Your task to perform on an android device: change the clock display to analog Image 0: 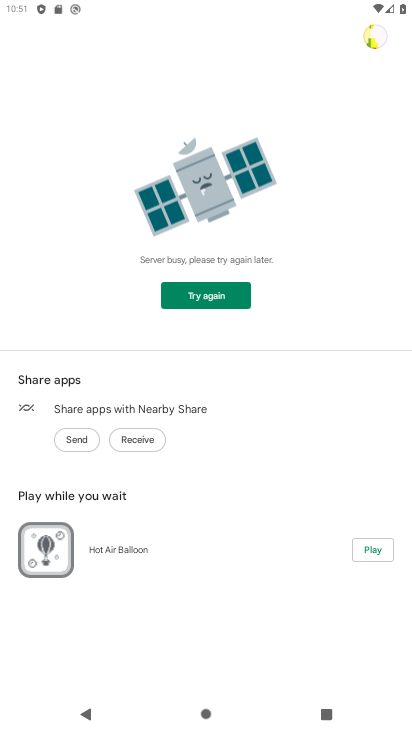
Step 0: press home button
Your task to perform on an android device: change the clock display to analog Image 1: 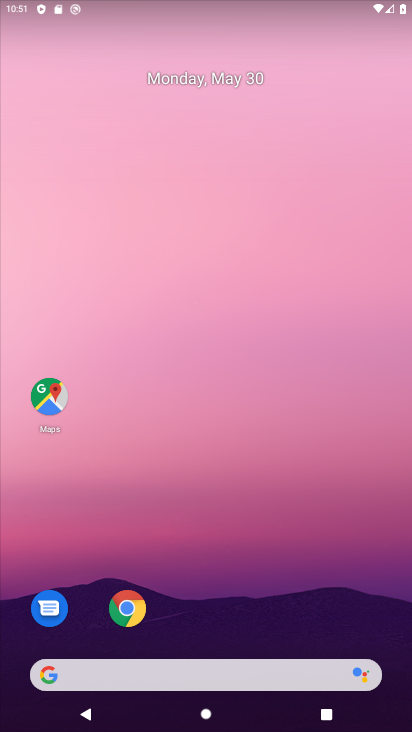
Step 1: drag from (296, 622) to (316, 13)
Your task to perform on an android device: change the clock display to analog Image 2: 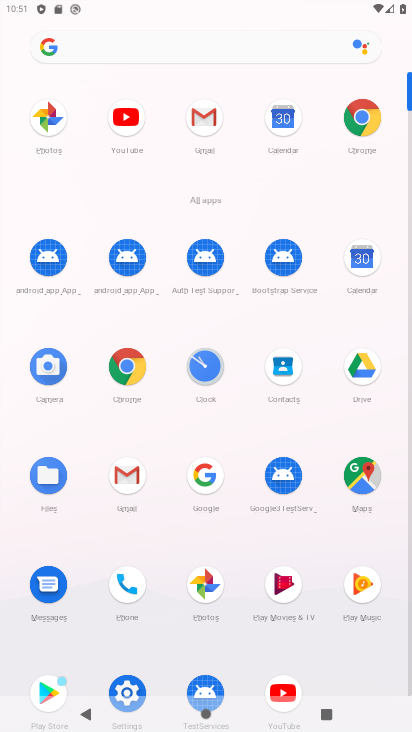
Step 2: click (201, 371)
Your task to perform on an android device: change the clock display to analog Image 3: 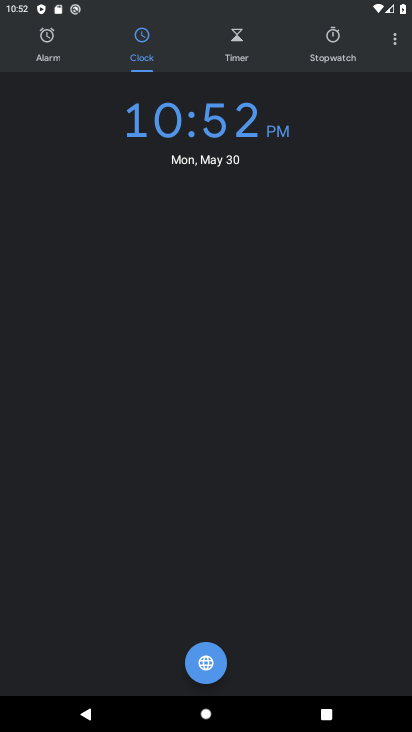
Step 3: click (394, 38)
Your task to perform on an android device: change the clock display to analog Image 4: 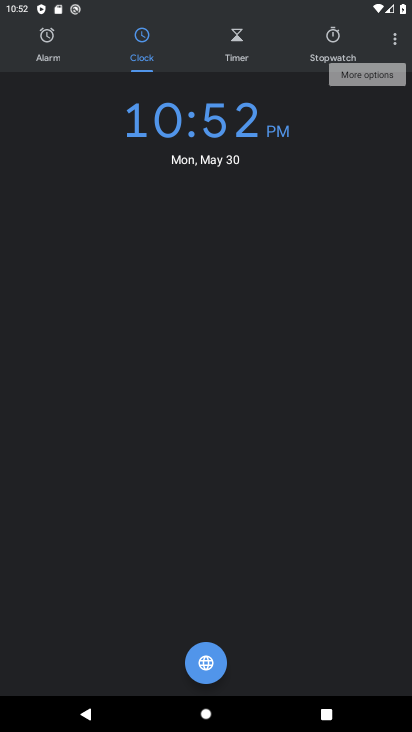
Step 4: click (397, 43)
Your task to perform on an android device: change the clock display to analog Image 5: 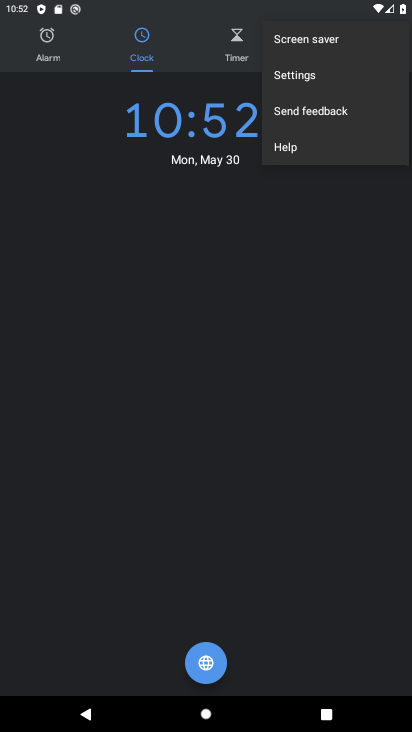
Step 5: click (287, 73)
Your task to perform on an android device: change the clock display to analog Image 6: 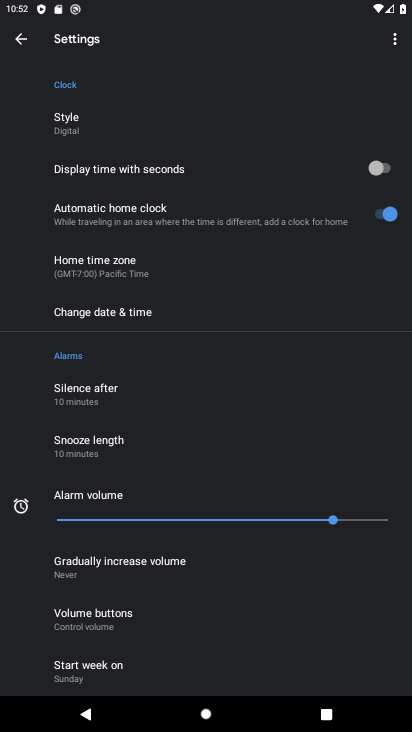
Step 6: click (63, 131)
Your task to perform on an android device: change the clock display to analog Image 7: 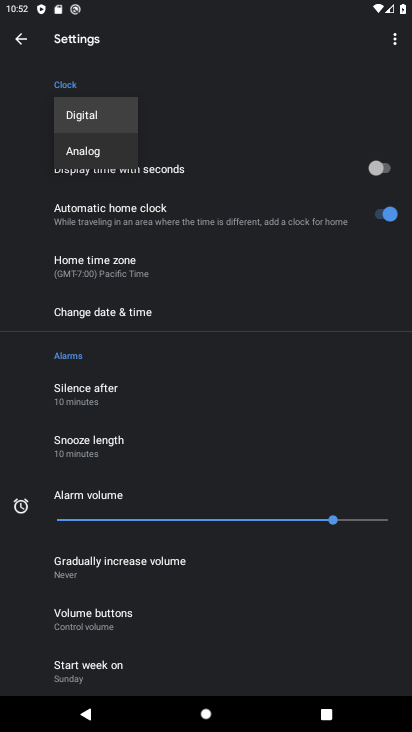
Step 7: click (84, 151)
Your task to perform on an android device: change the clock display to analog Image 8: 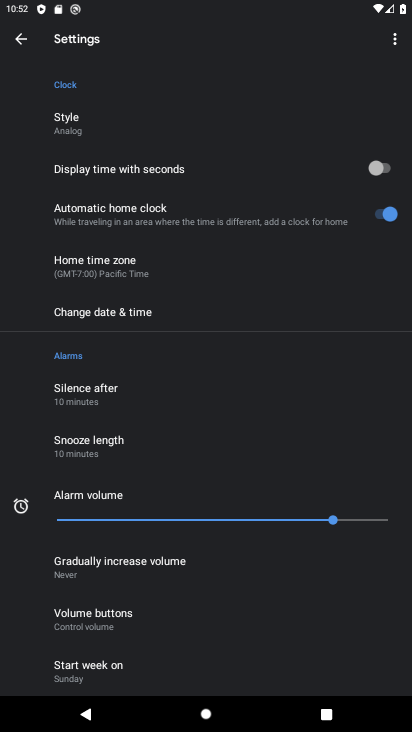
Step 8: task complete